Your task to perform on an android device: Open wifi settings Image 0: 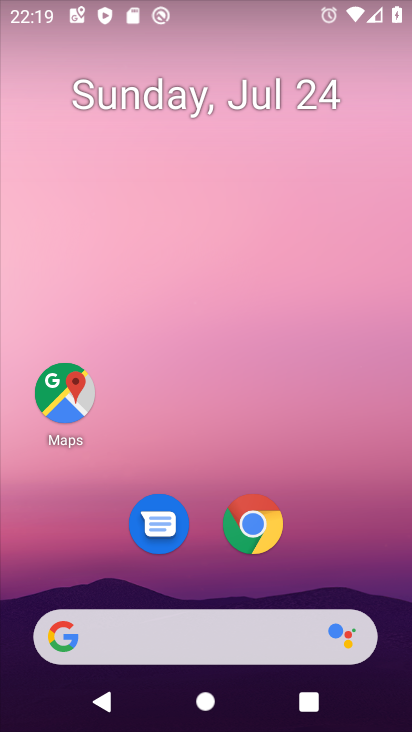
Step 0: drag from (236, 634) to (332, 131)
Your task to perform on an android device: Open wifi settings Image 1: 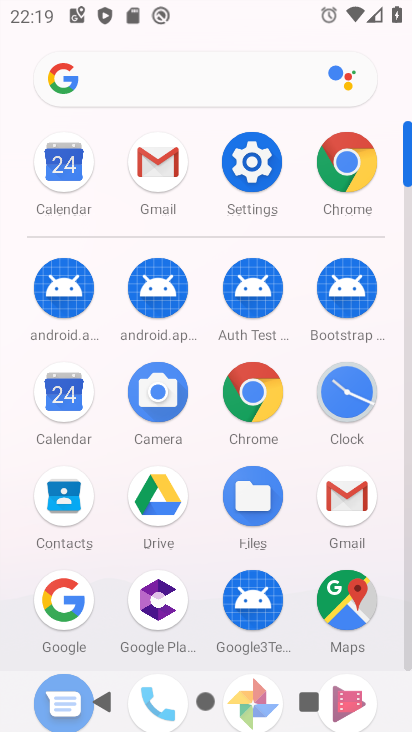
Step 1: click (260, 159)
Your task to perform on an android device: Open wifi settings Image 2: 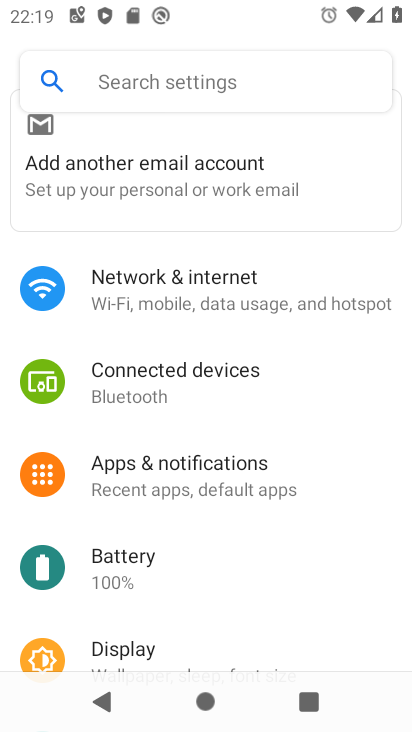
Step 2: click (234, 284)
Your task to perform on an android device: Open wifi settings Image 3: 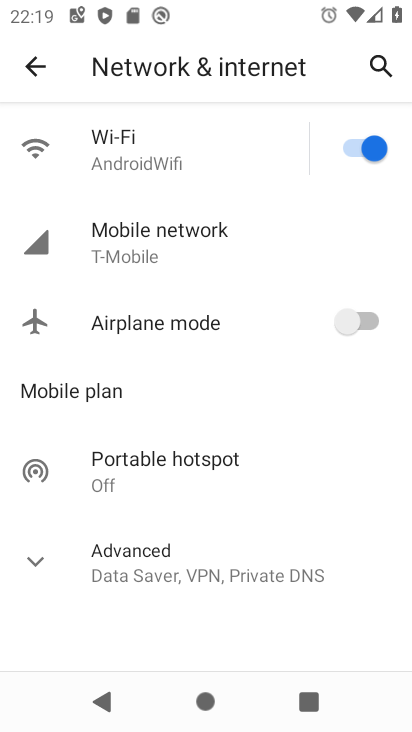
Step 3: click (113, 158)
Your task to perform on an android device: Open wifi settings Image 4: 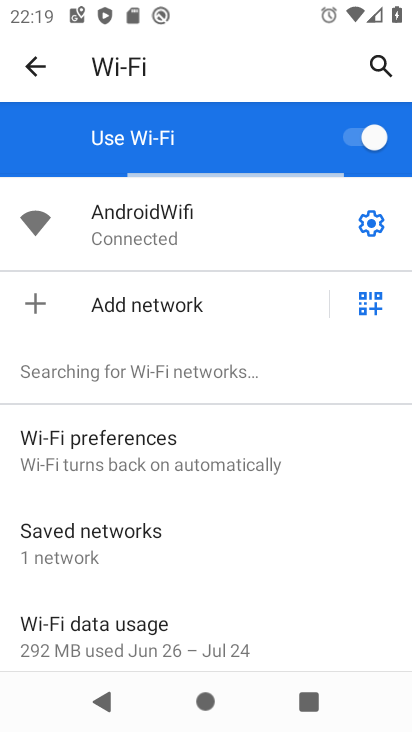
Step 4: task complete